Your task to perform on an android device: move an email to a new category in the gmail app Image 0: 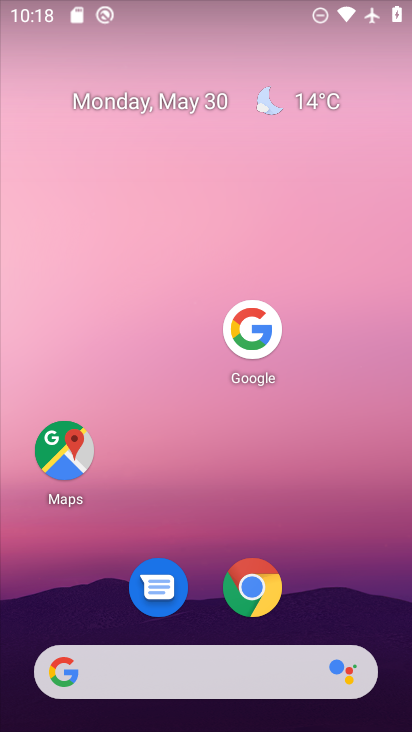
Step 0: drag from (180, 679) to (407, 167)
Your task to perform on an android device: move an email to a new category in the gmail app Image 1: 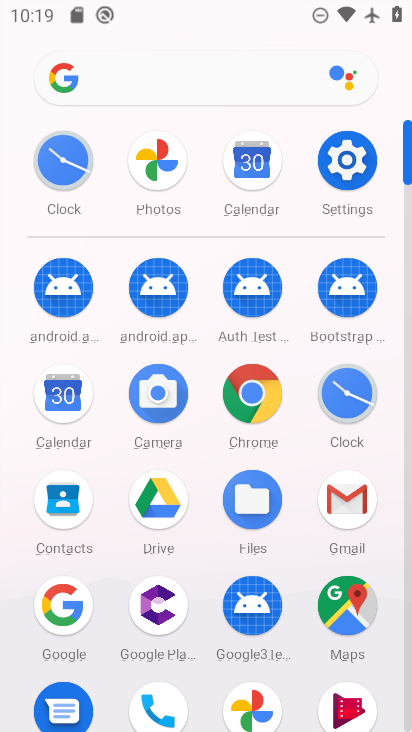
Step 1: click (335, 505)
Your task to perform on an android device: move an email to a new category in the gmail app Image 2: 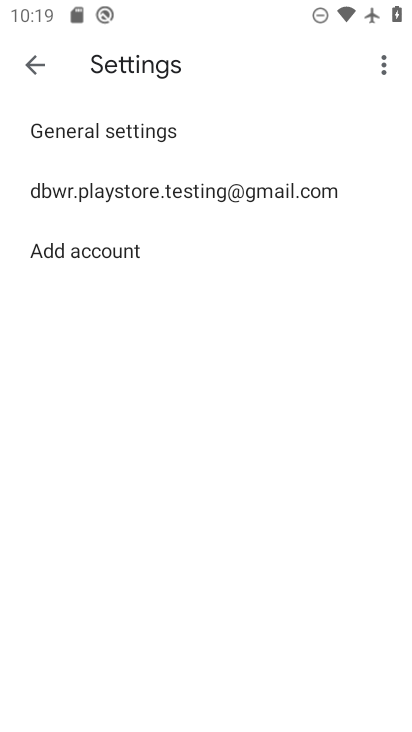
Step 2: click (30, 67)
Your task to perform on an android device: move an email to a new category in the gmail app Image 3: 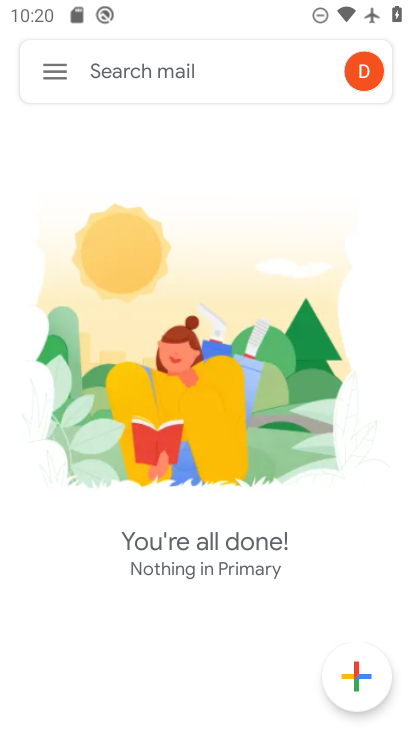
Step 3: task complete